Your task to perform on an android device: What's on my calendar tomorrow? Image 0: 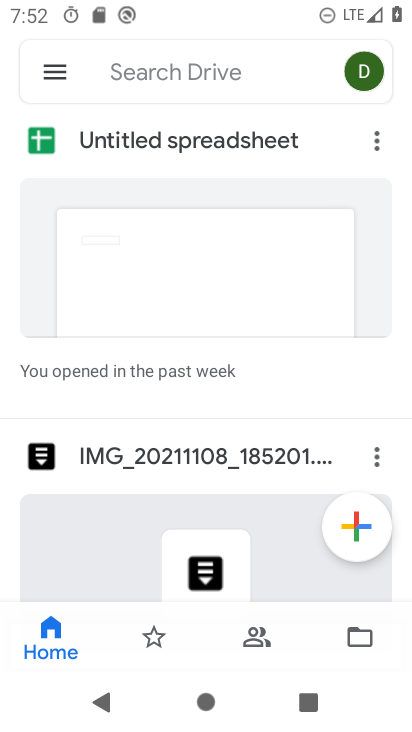
Step 0: press home button
Your task to perform on an android device: What's on my calendar tomorrow? Image 1: 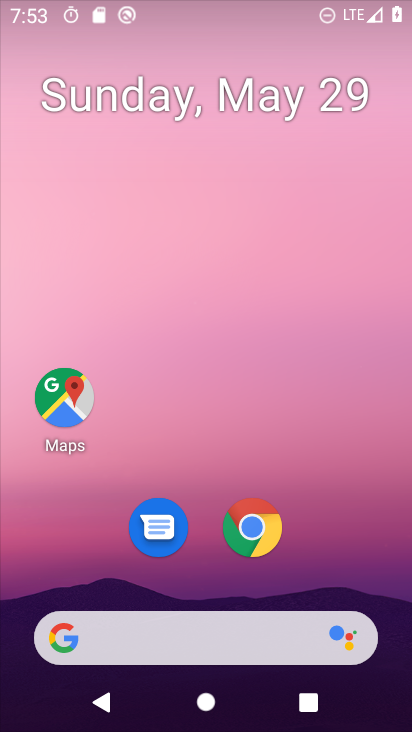
Step 1: drag from (369, 606) to (299, 4)
Your task to perform on an android device: What's on my calendar tomorrow? Image 2: 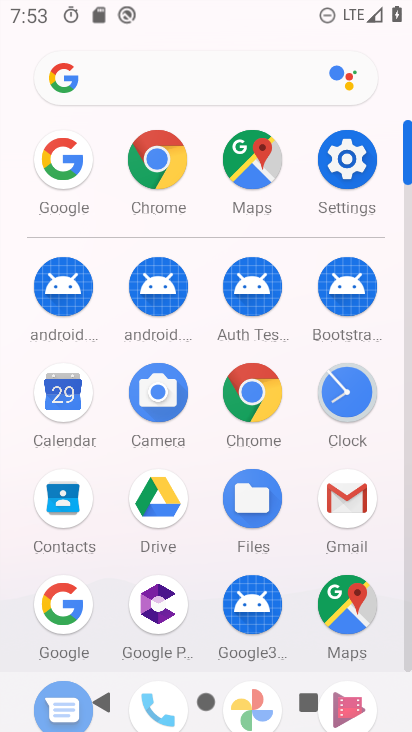
Step 2: click (76, 392)
Your task to perform on an android device: What's on my calendar tomorrow? Image 3: 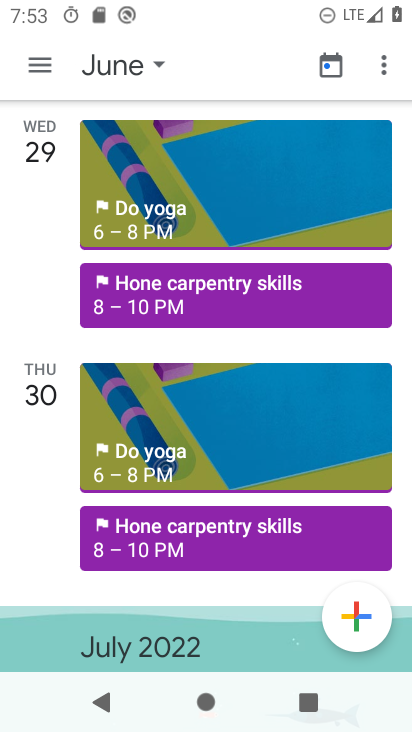
Step 3: click (113, 63)
Your task to perform on an android device: What's on my calendar tomorrow? Image 4: 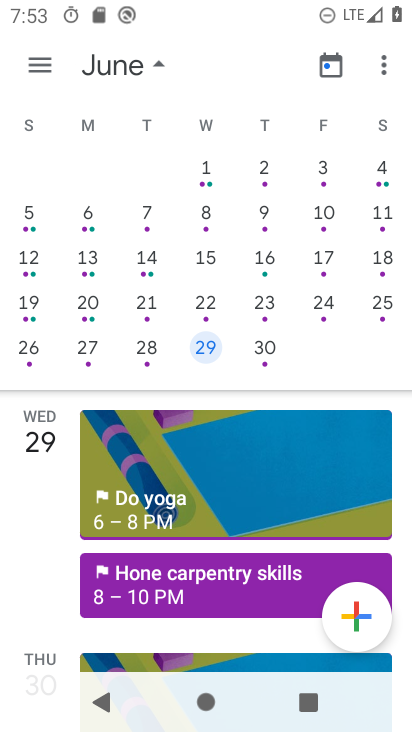
Step 4: drag from (78, 257) to (348, 208)
Your task to perform on an android device: What's on my calendar tomorrow? Image 5: 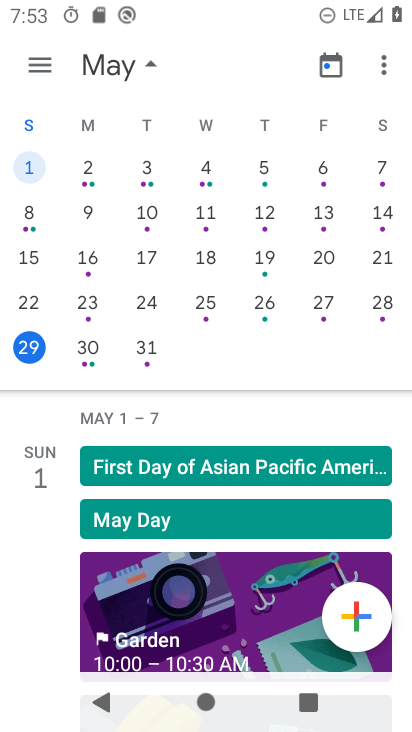
Step 5: click (144, 345)
Your task to perform on an android device: What's on my calendar tomorrow? Image 6: 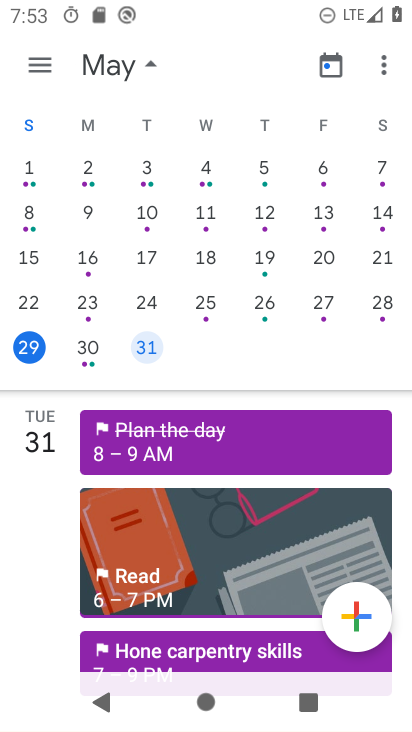
Step 6: click (245, 648)
Your task to perform on an android device: What's on my calendar tomorrow? Image 7: 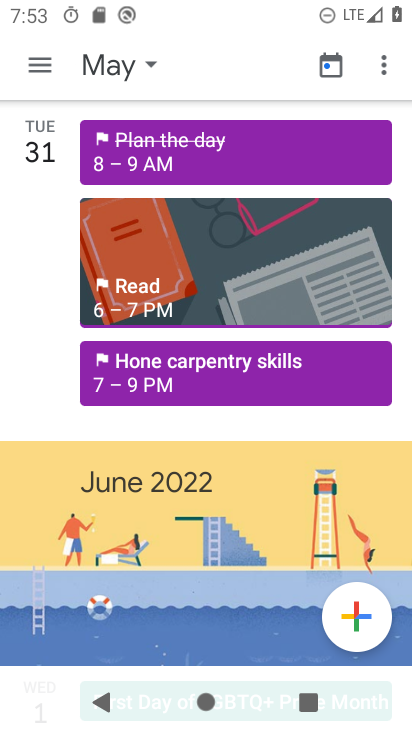
Step 7: click (225, 300)
Your task to perform on an android device: What's on my calendar tomorrow? Image 8: 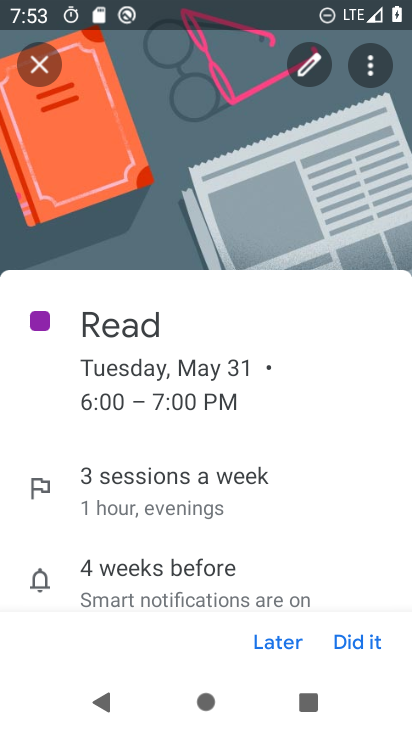
Step 8: task complete